Your task to perform on an android device: Open eBay Image 0: 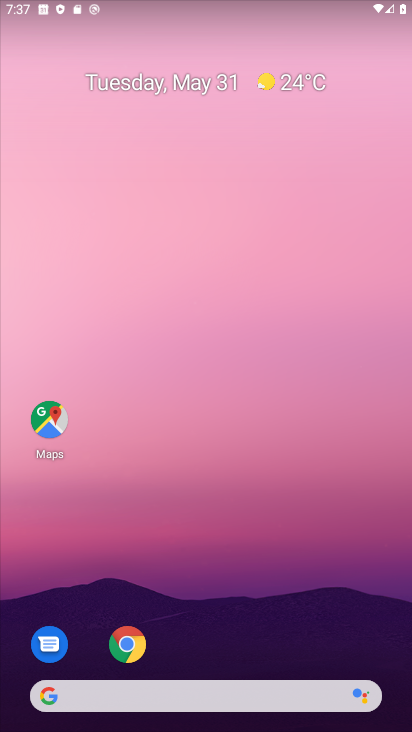
Step 0: drag from (247, 583) to (316, 239)
Your task to perform on an android device: Open eBay Image 1: 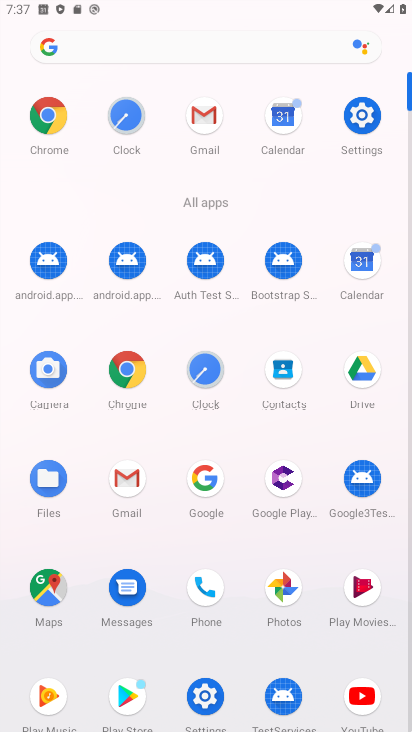
Step 1: click (135, 372)
Your task to perform on an android device: Open eBay Image 2: 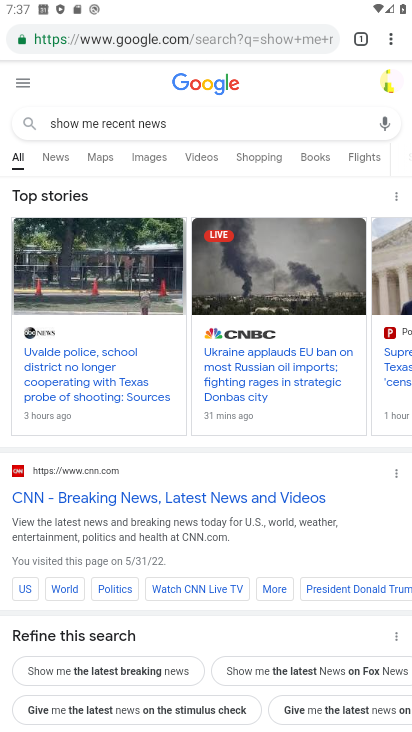
Step 2: click (185, 41)
Your task to perform on an android device: Open eBay Image 3: 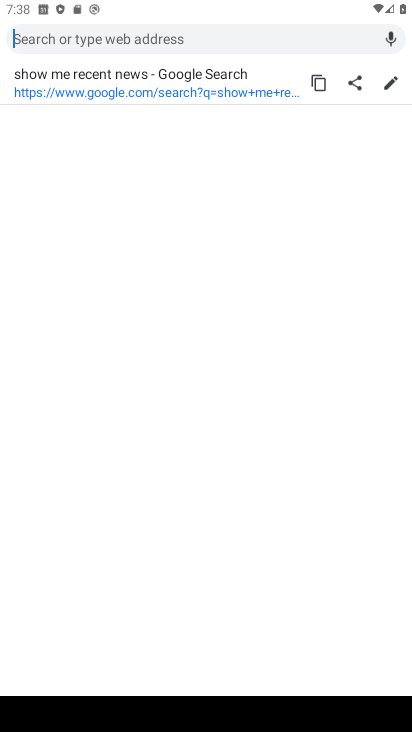
Step 3: type "ebay"
Your task to perform on an android device: Open eBay Image 4: 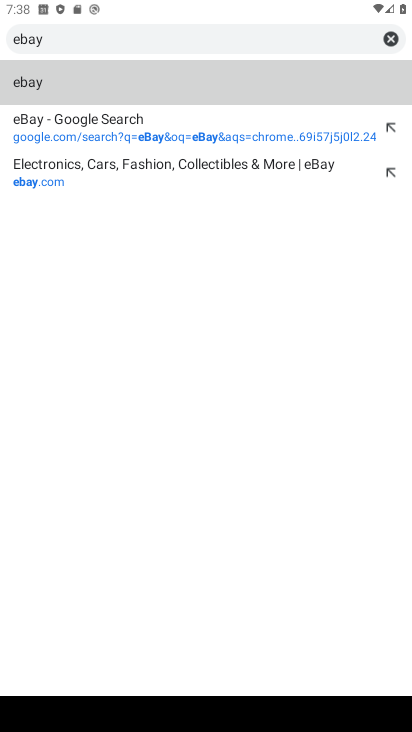
Step 4: click (125, 85)
Your task to perform on an android device: Open eBay Image 5: 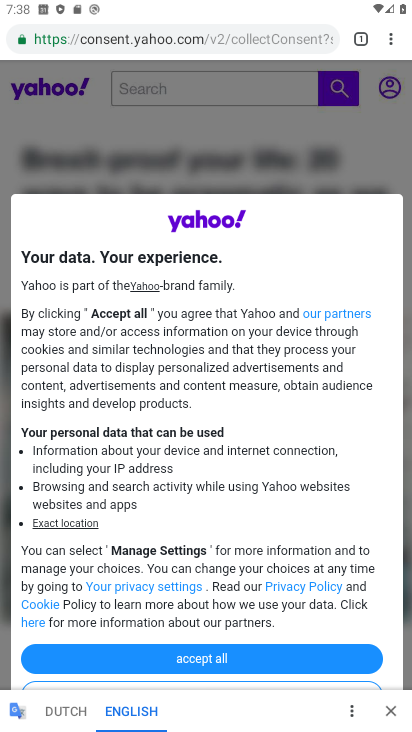
Step 5: task complete